Your task to perform on an android device: turn pop-ups off in chrome Image 0: 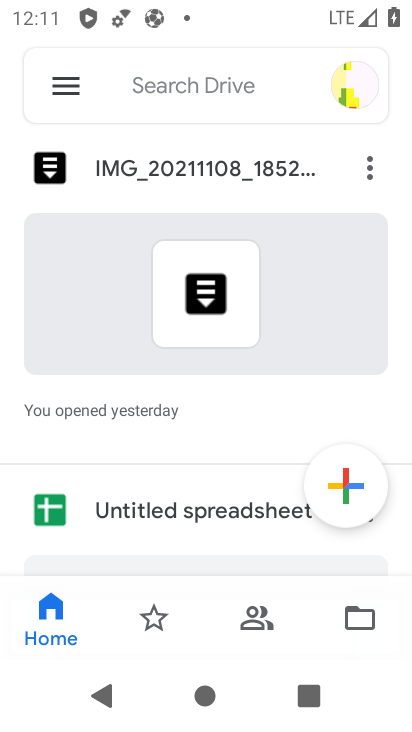
Step 0: press home button
Your task to perform on an android device: turn pop-ups off in chrome Image 1: 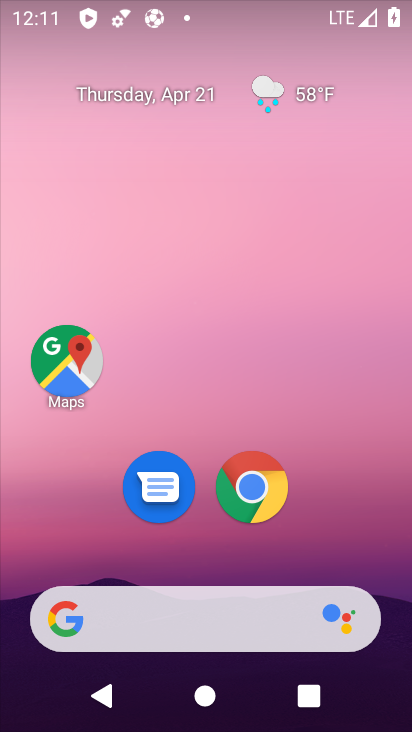
Step 1: click (259, 483)
Your task to perform on an android device: turn pop-ups off in chrome Image 2: 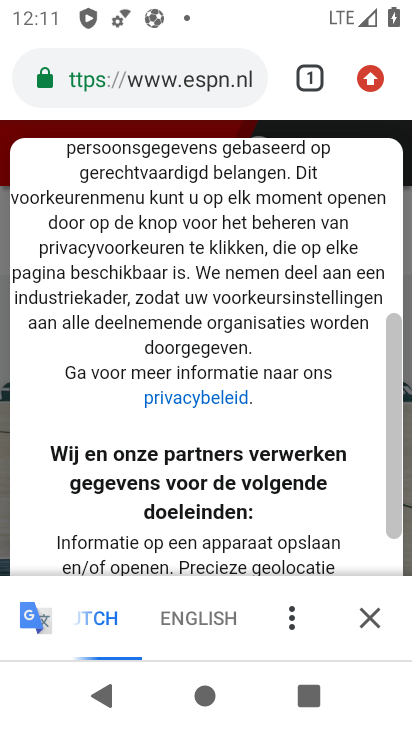
Step 2: click (371, 82)
Your task to perform on an android device: turn pop-ups off in chrome Image 3: 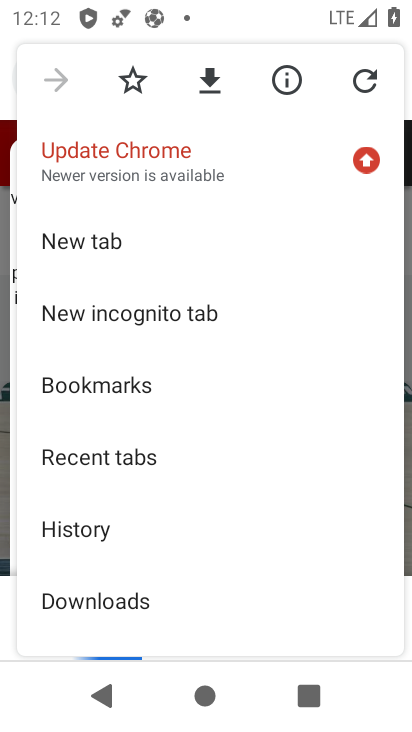
Step 3: drag from (235, 543) to (196, 153)
Your task to perform on an android device: turn pop-ups off in chrome Image 4: 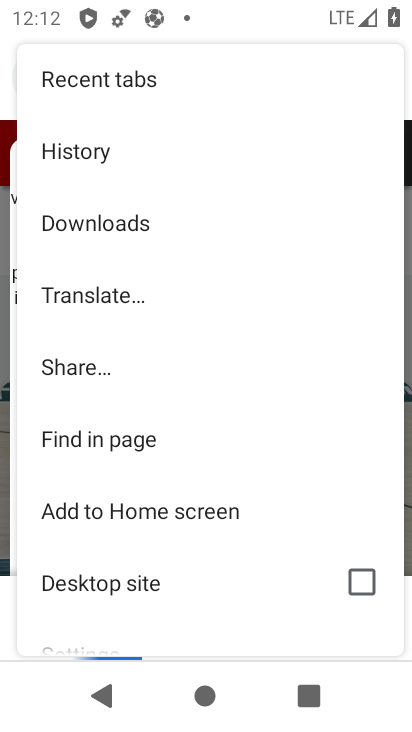
Step 4: drag from (268, 538) to (239, 254)
Your task to perform on an android device: turn pop-ups off in chrome Image 5: 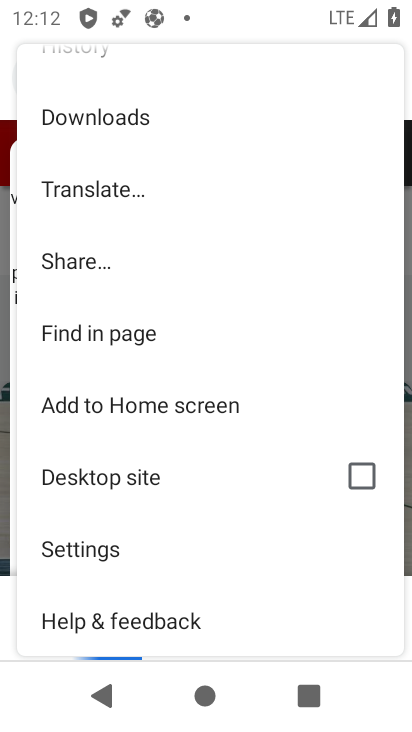
Step 5: click (84, 551)
Your task to perform on an android device: turn pop-ups off in chrome Image 6: 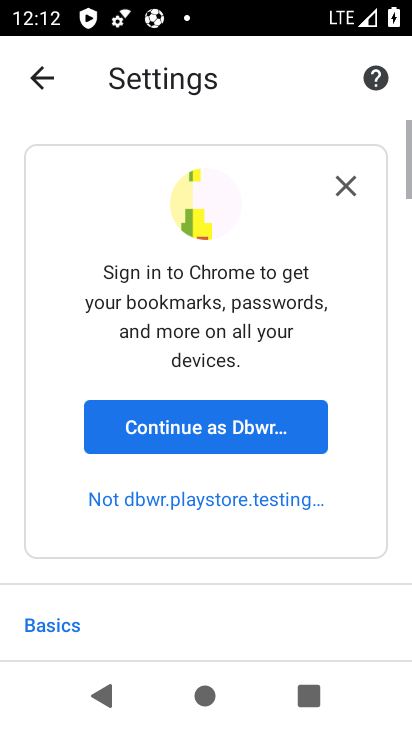
Step 6: drag from (231, 498) to (231, 169)
Your task to perform on an android device: turn pop-ups off in chrome Image 7: 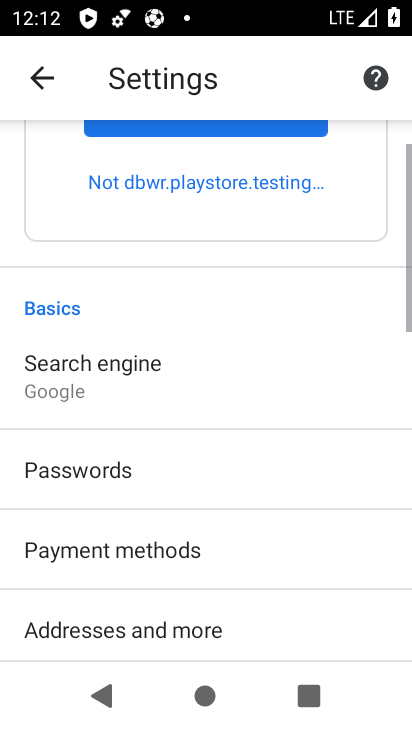
Step 7: drag from (218, 502) to (209, 95)
Your task to perform on an android device: turn pop-ups off in chrome Image 8: 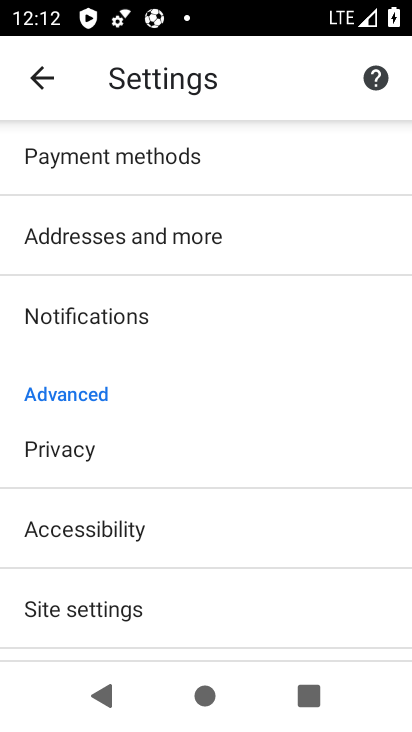
Step 8: drag from (191, 483) to (171, 146)
Your task to perform on an android device: turn pop-ups off in chrome Image 9: 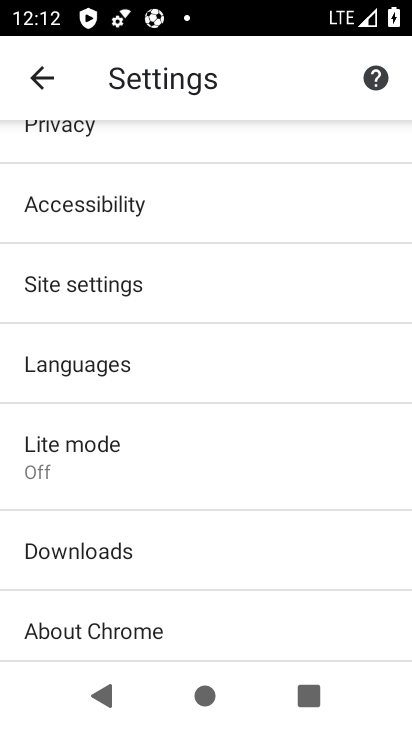
Step 9: click (71, 289)
Your task to perform on an android device: turn pop-ups off in chrome Image 10: 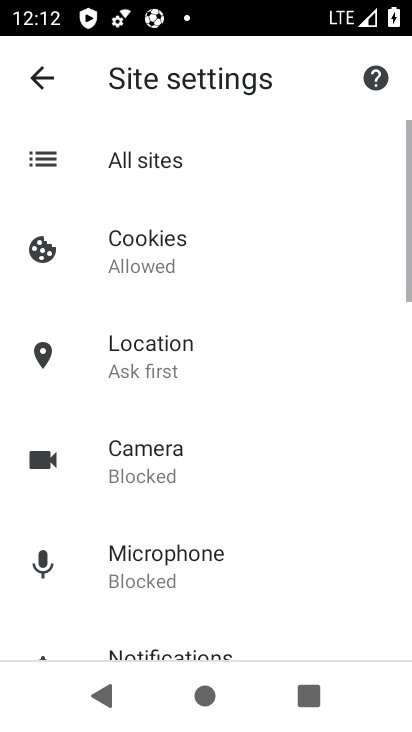
Step 10: drag from (177, 539) to (163, 224)
Your task to perform on an android device: turn pop-ups off in chrome Image 11: 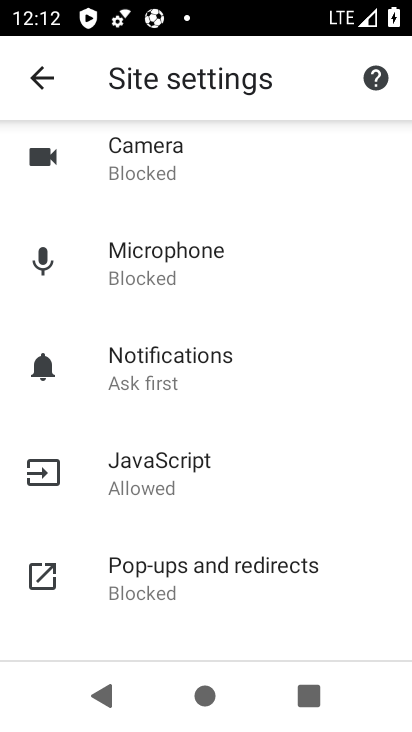
Step 11: click (169, 577)
Your task to perform on an android device: turn pop-ups off in chrome Image 12: 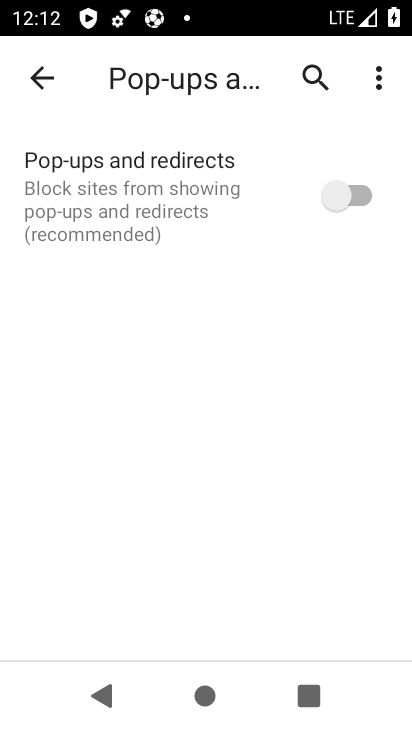
Step 12: task complete